Your task to perform on an android device: Open Google Maps Image 0: 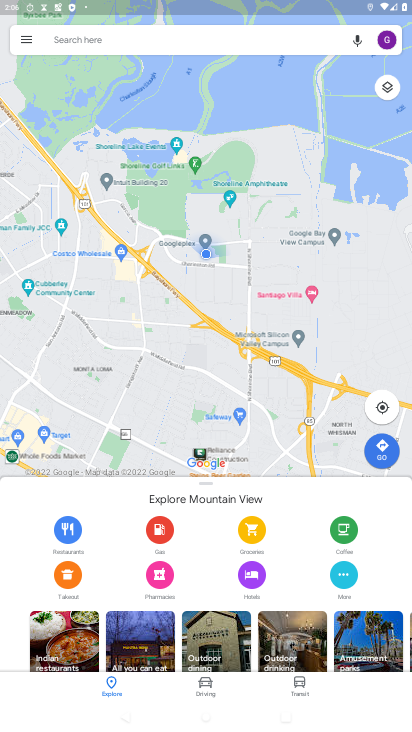
Step 0: task complete